Your task to perform on an android device: open a bookmark in the chrome app Image 0: 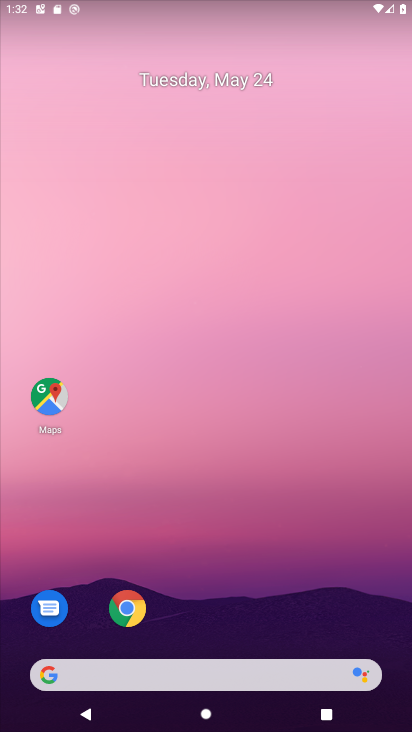
Step 0: click (119, 608)
Your task to perform on an android device: open a bookmark in the chrome app Image 1: 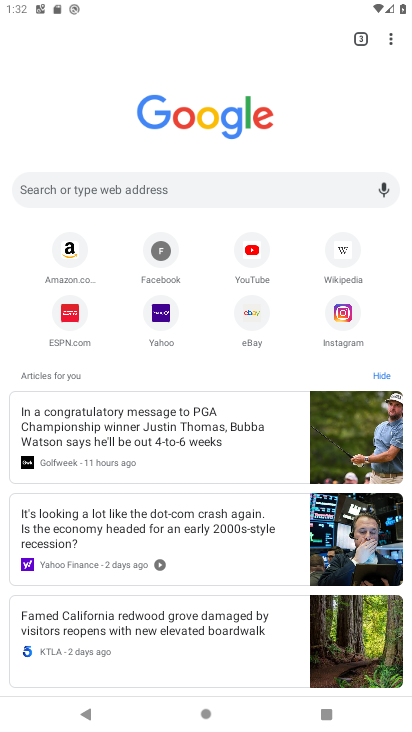
Step 1: click (390, 44)
Your task to perform on an android device: open a bookmark in the chrome app Image 2: 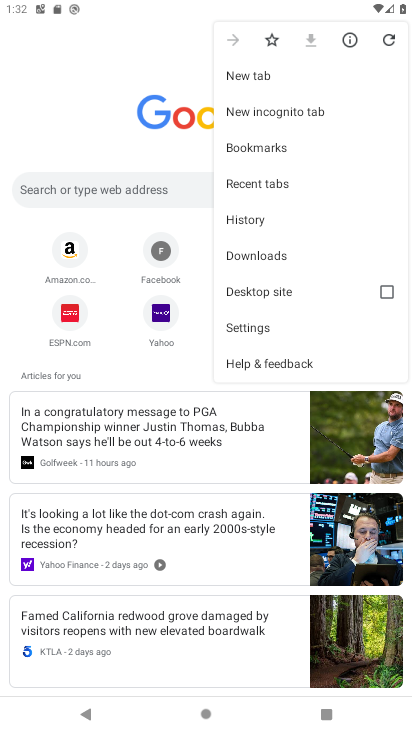
Step 2: click (267, 144)
Your task to perform on an android device: open a bookmark in the chrome app Image 3: 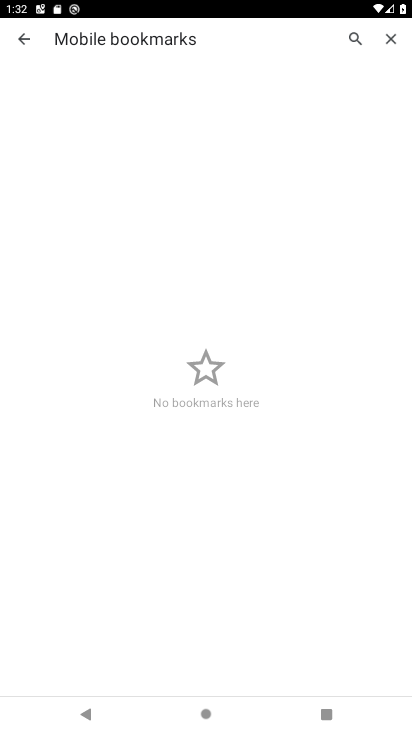
Step 3: task complete